Your task to perform on an android device: change alarm snooze length Image 0: 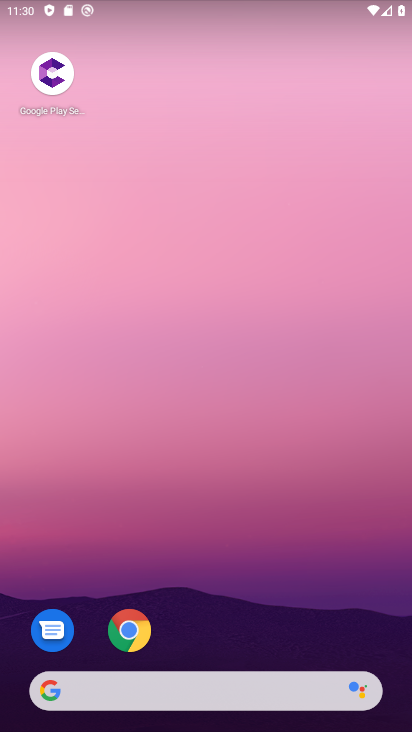
Step 0: drag from (342, 631) to (239, 129)
Your task to perform on an android device: change alarm snooze length Image 1: 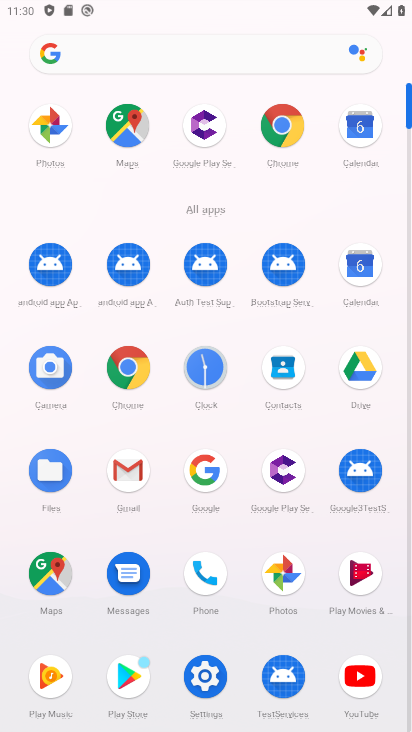
Step 1: click (221, 360)
Your task to perform on an android device: change alarm snooze length Image 2: 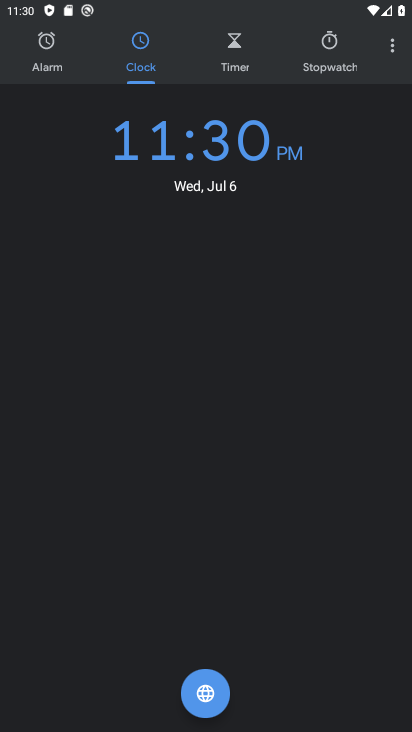
Step 2: click (390, 65)
Your task to perform on an android device: change alarm snooze length Image 3: 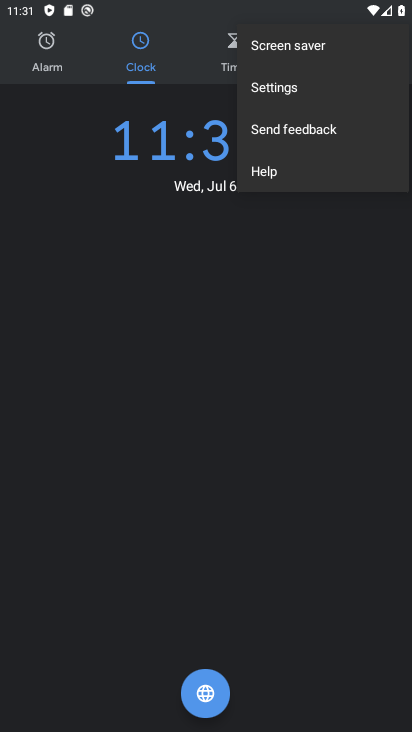
Step 3: click (346, 87)
Your task to perform on an android device: change alarm snooze length Image 4: 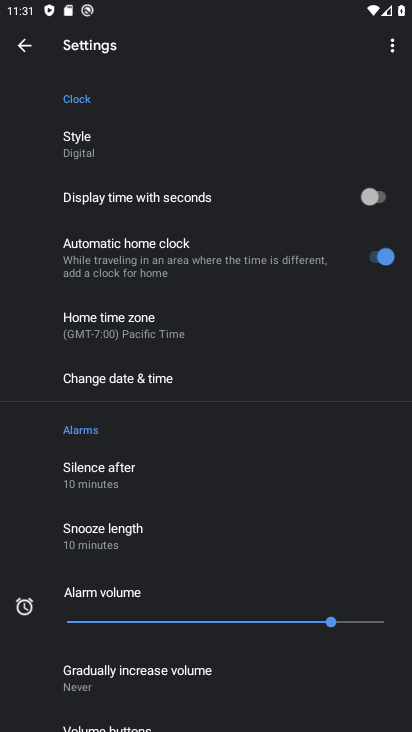
Step 4: click (253, 537)
Your task to perform on an android device: change alarm snooze length Image 5: 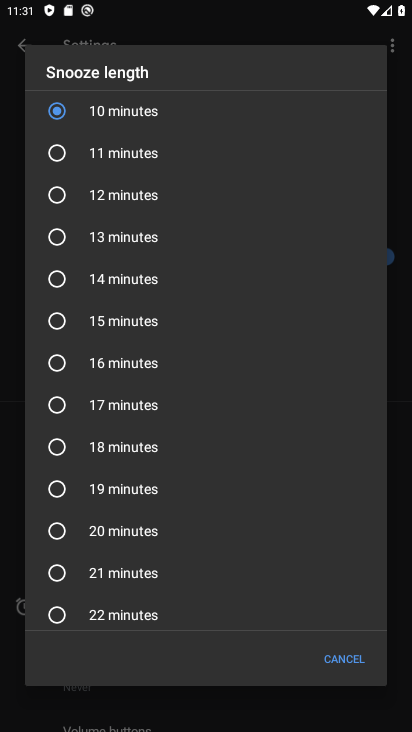
Step 5: click (154, 285)
Your task to perform on an android device: change alarm snooze length Image 6: 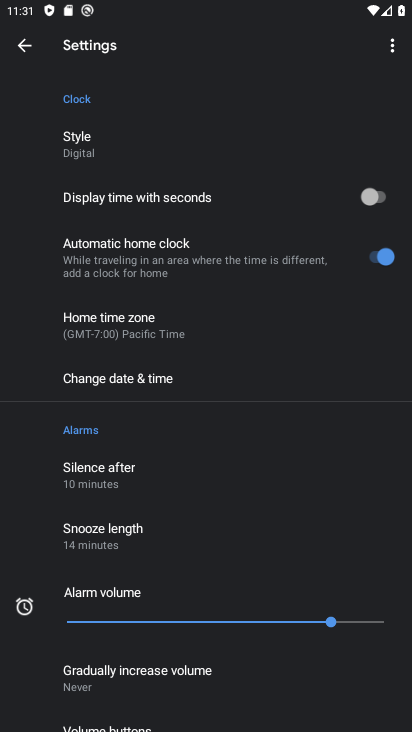
Step 6: task complete